Your task to perform on an android device: Open Google Chrome and open the bookmarks view Image 0: 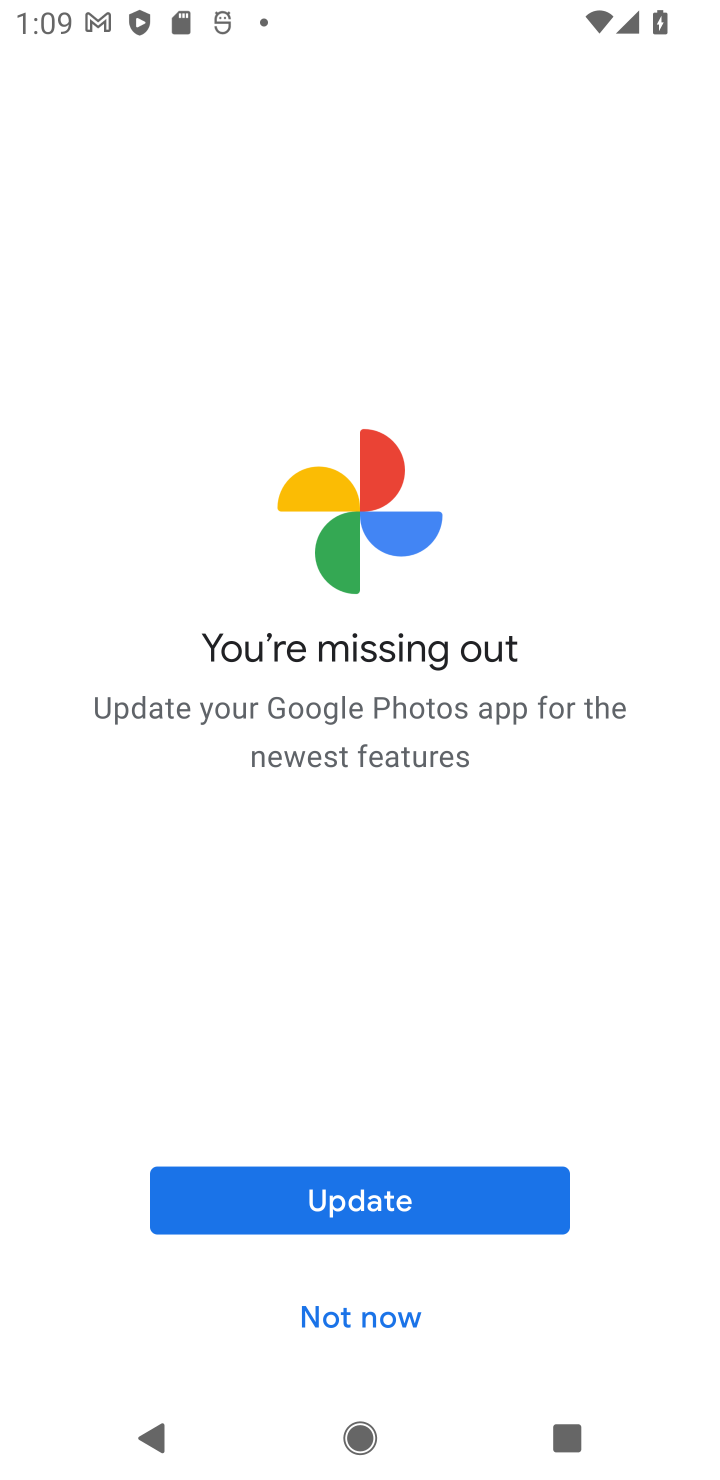
Step 0: press home button
Your task to perform on an android device: Open Google Chrome and open the bookmarks view Image 1: 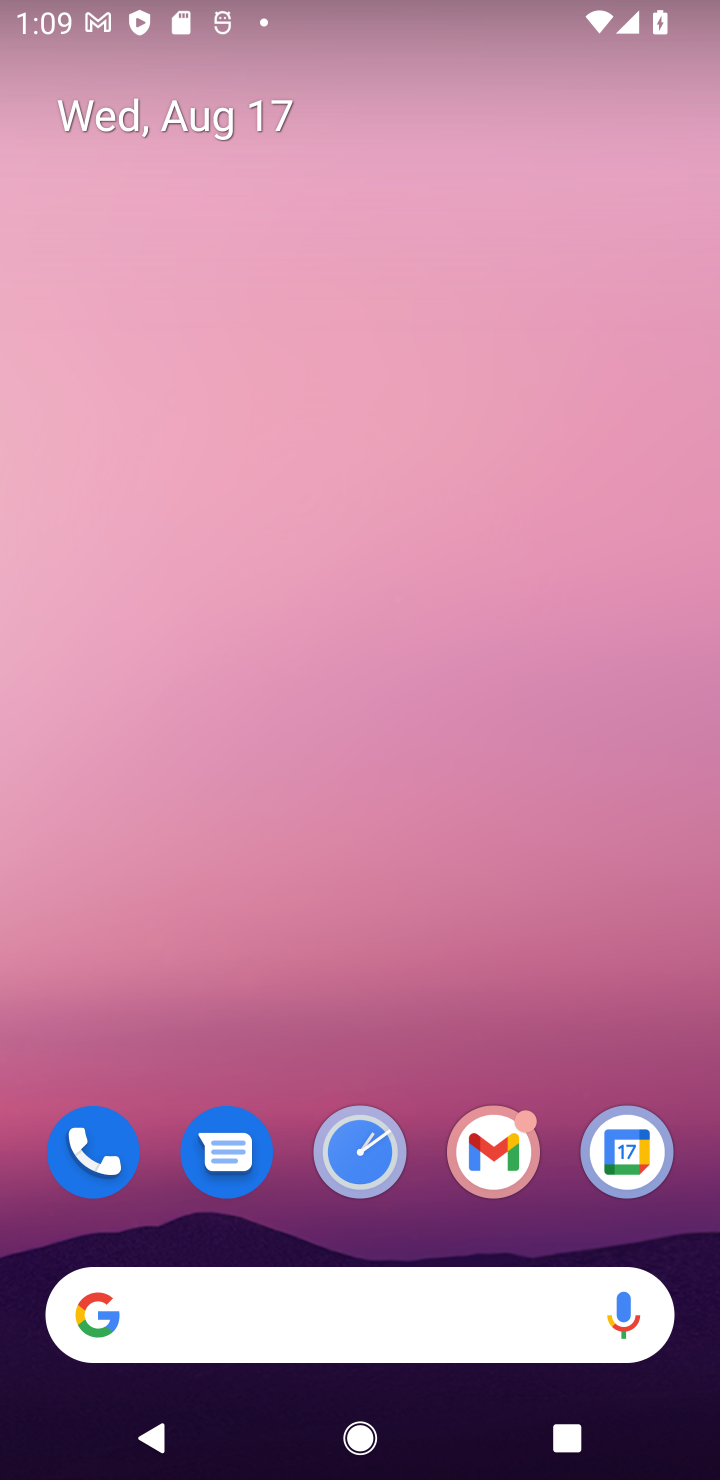
Step 1: drag from (673, 1271) to (442, 58)
Your task to perform on an android device: Open Google Chrome and open the bookmarks view Image 2: 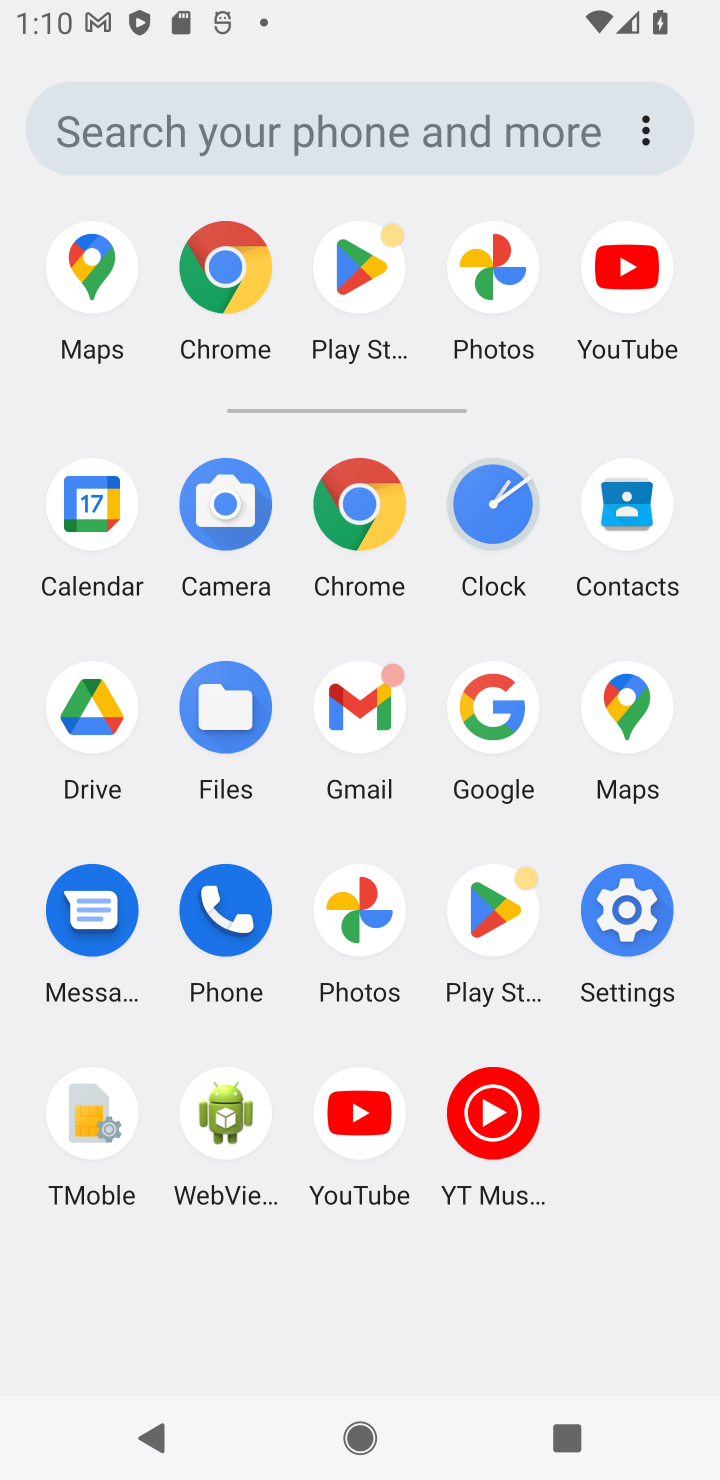
Step 2: click (357, 490)
Your task to perform on an android device: Open Google Chrome and open the bookmarks view Image 3: 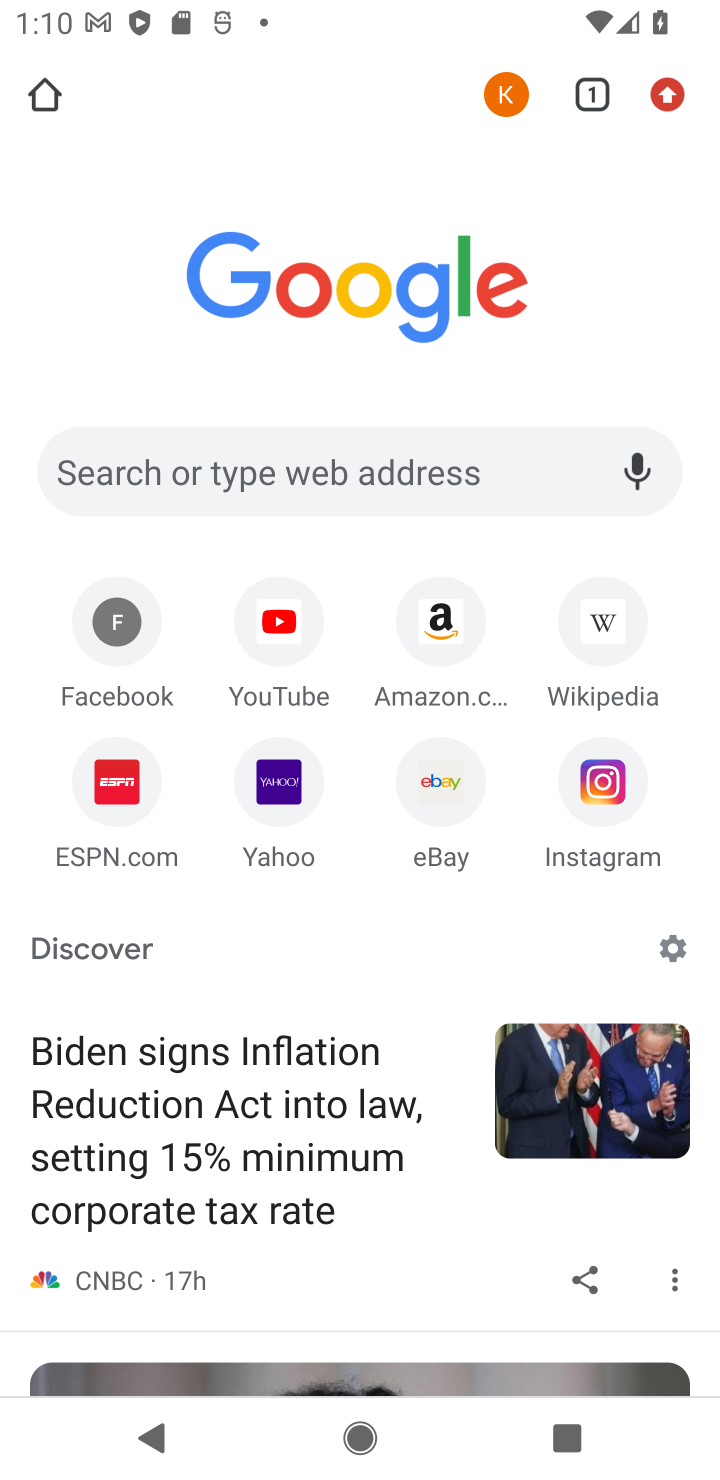
Step 3: click (665, 84)
Your task to perform on an android device: Open Google Chrome and open the bookmarks view Image 4: 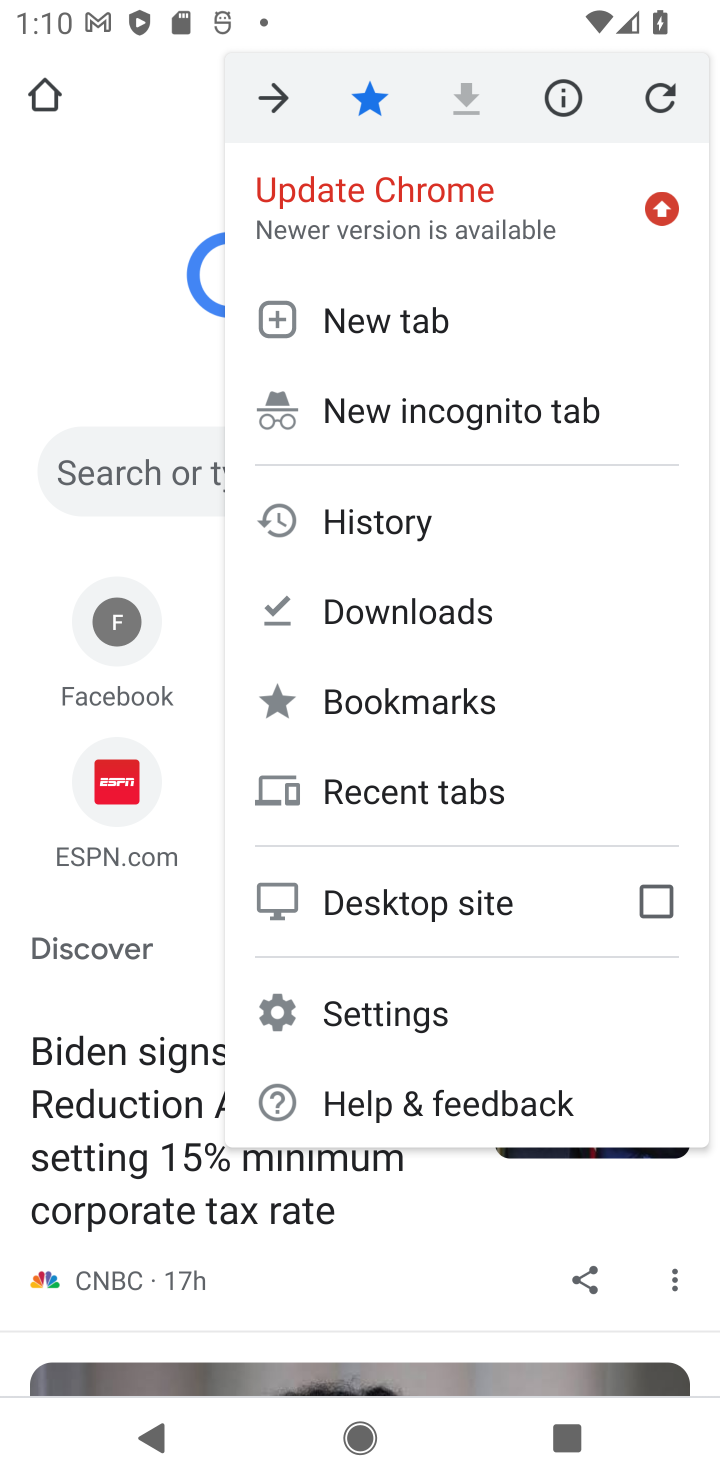
Step 4: click (402, 720)
Your task to perform on an android device: Open Google Chrome and open the bookmarks view Image 5: 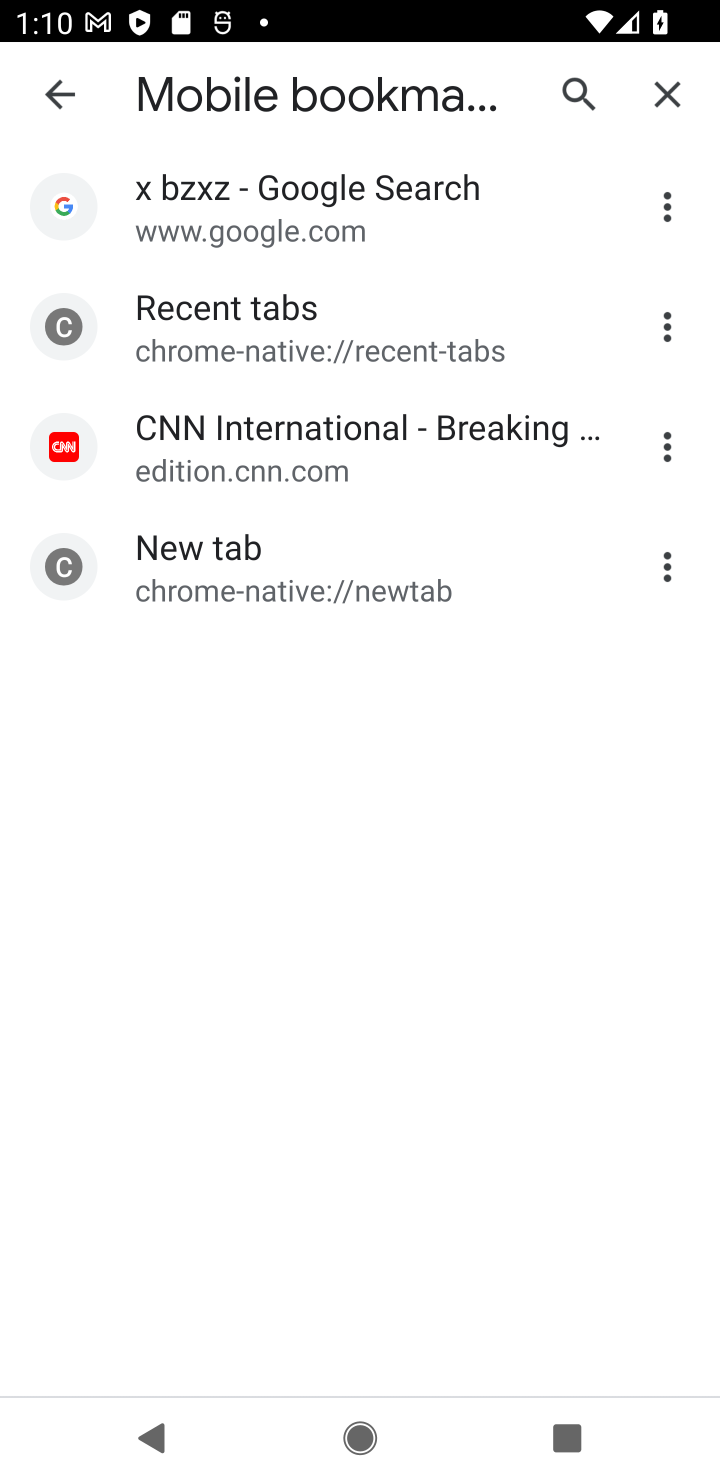
Step 5: task complete